Your task to perform on an android device: Clear all items from cart on target.com. Search for "razer huntsman" on target.com, select the first entry, and add it to the cart. Image 0: 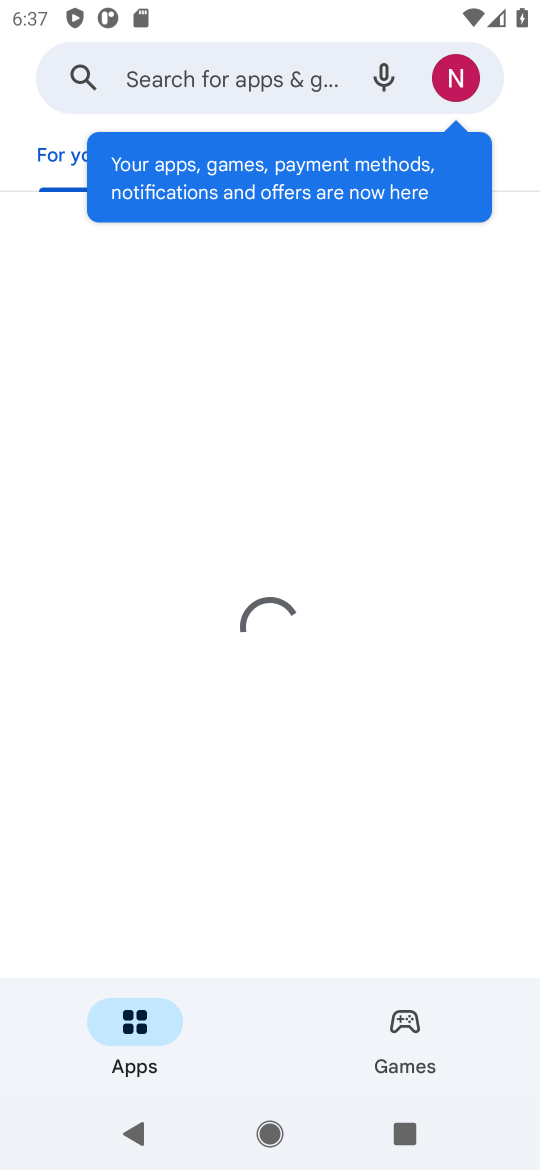
Step 0: press home button
Your task to perform on an android device: Clear all items from cart on target.com. Search for "razer huntsman" on target.com, select the first entry, and add it to the cart. Image 1: 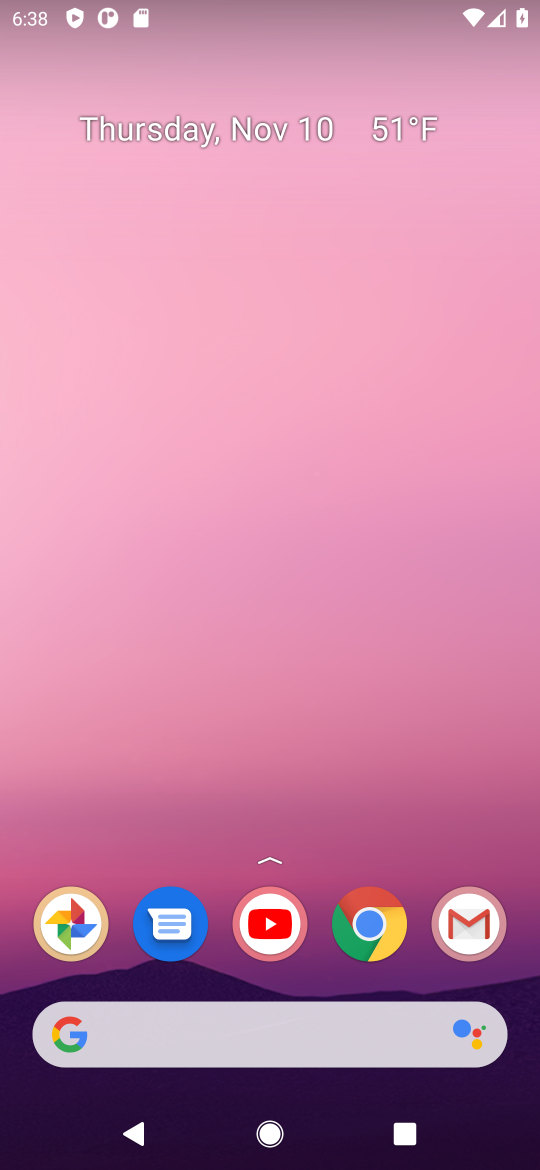
Step 1: click (363, 922)
Your task to perform on an android device: Clear all items from cart on target.com. Search for "razer huntsman" on target.com, select the first entry, and add it to the cart. Image 2: 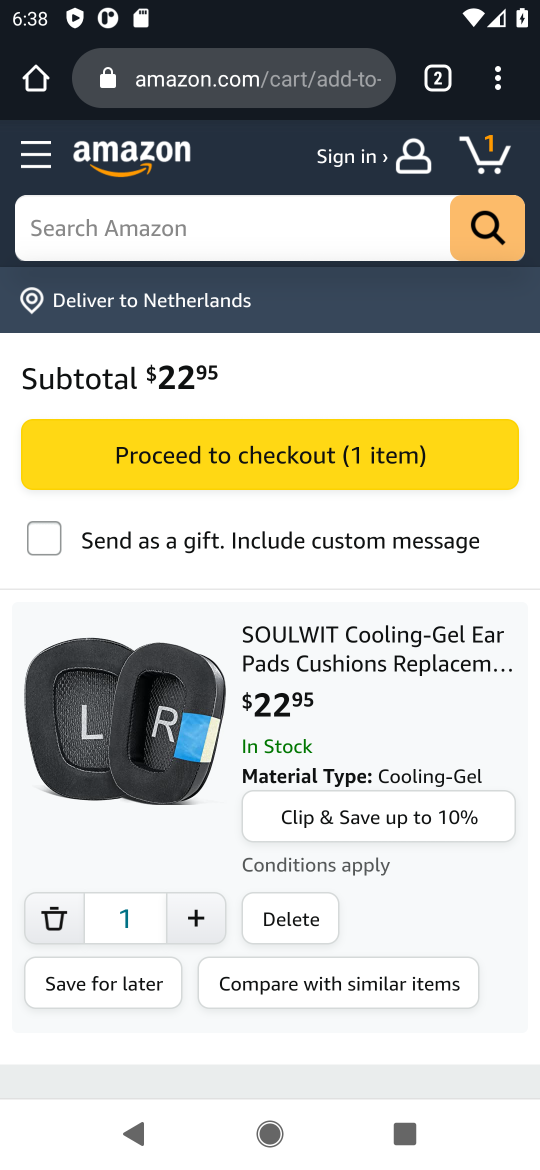
Step 2: click (172, 92)
Your task to perform on an android device: Clear all items from cart on target.com. Search for "razer huntsman" on target.com, select the first entry, and add it to the cart. Image 3: 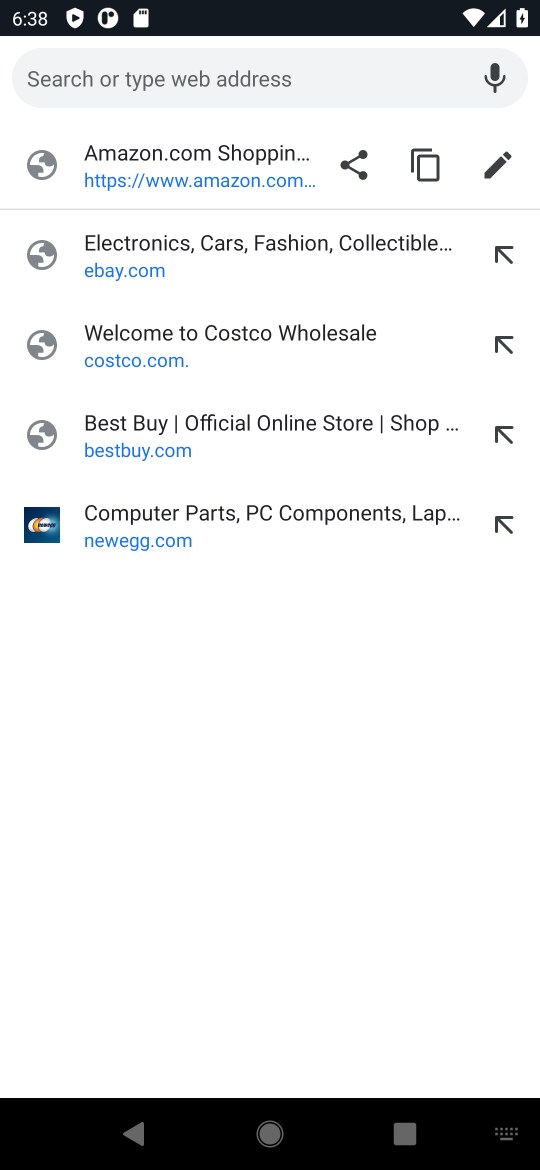
Step 3: type "target.com"
Your task to perform on an android device: Clear all items from cart on target.com. Search for "razer huntsman" on target.com, select the first entry, and add it to the cart. Image 4: 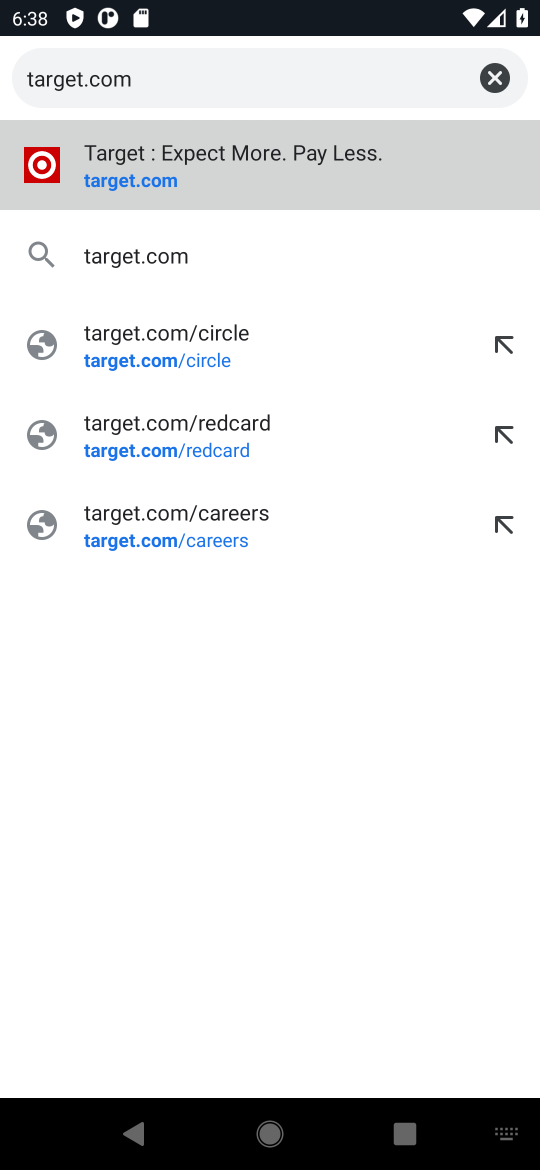
Step 4: click (150, 85)
Your task to perform on an android device: Clear all items from cart on target.com. Search for "razer huntsman" on target.com, select the first entry, and add it to the cart. Image 5: 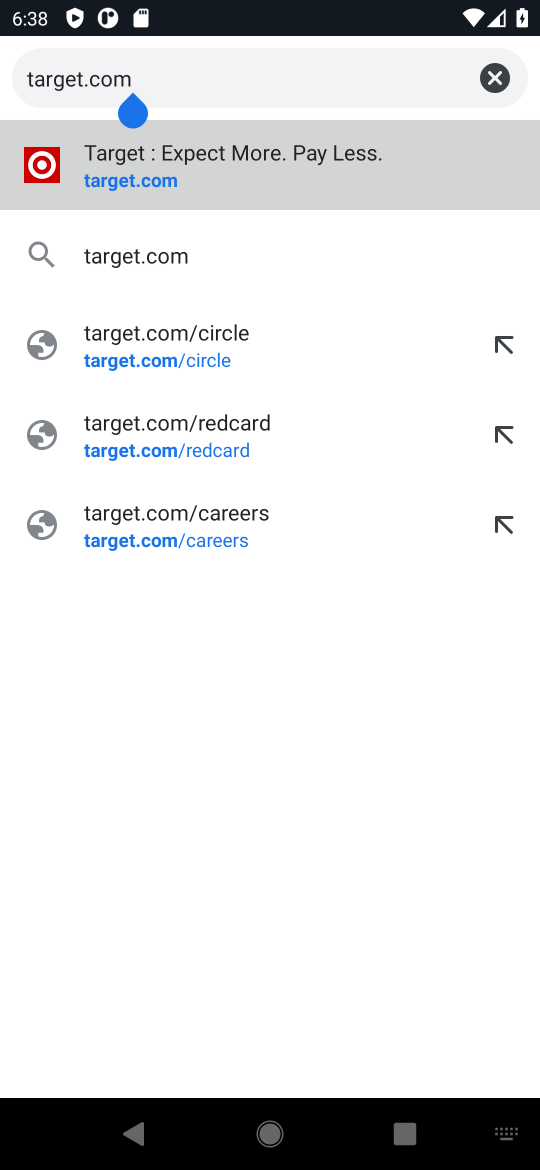
Step 5: click (125, 182)
Your task to perform on an android device: Clear all items from cart on target.com. Search for "razer huntsman" on target.com, select the first entry, and add it to the cart. Image 6: 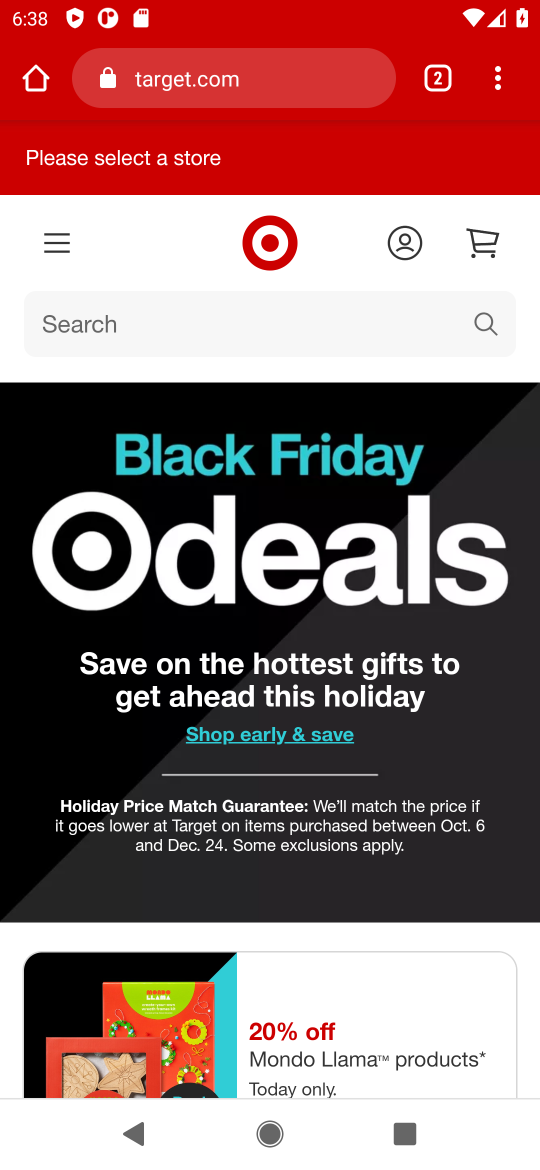
Step 6: click (487, 250)
Your task to perform on an android device: Clear all items from cart on target.com. Search for "razer huntsman" on target.com, select the first entry, and add it to the cart. Image 7: 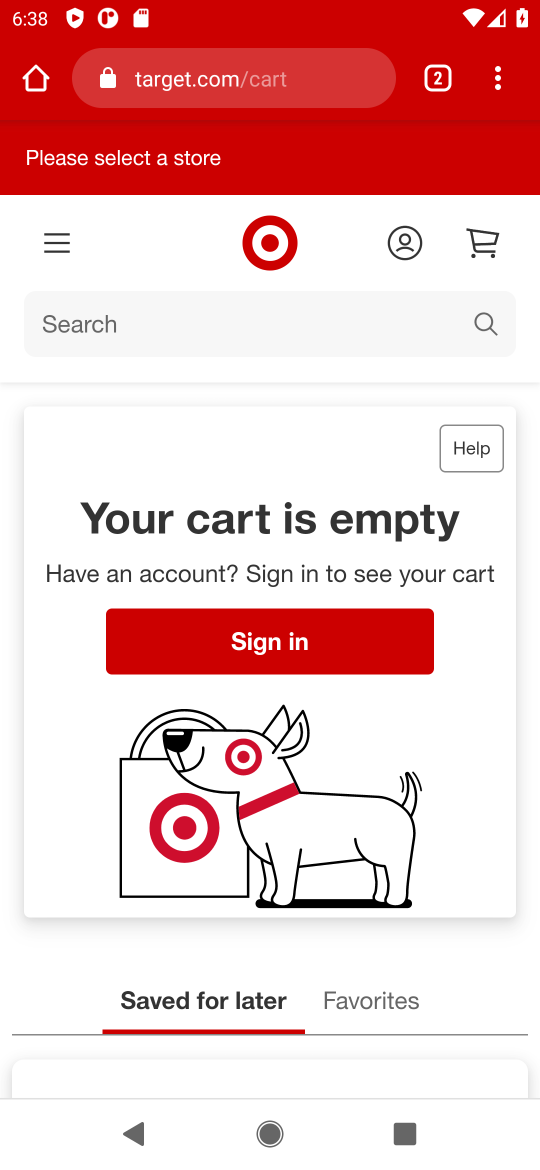
Step 7: click (487, 328)
Your task to perform on an android device: Clear all items from cart on target.com. Search for "razer huntsman" on target.com, select the first entry, and add it to the cart. Image 8: 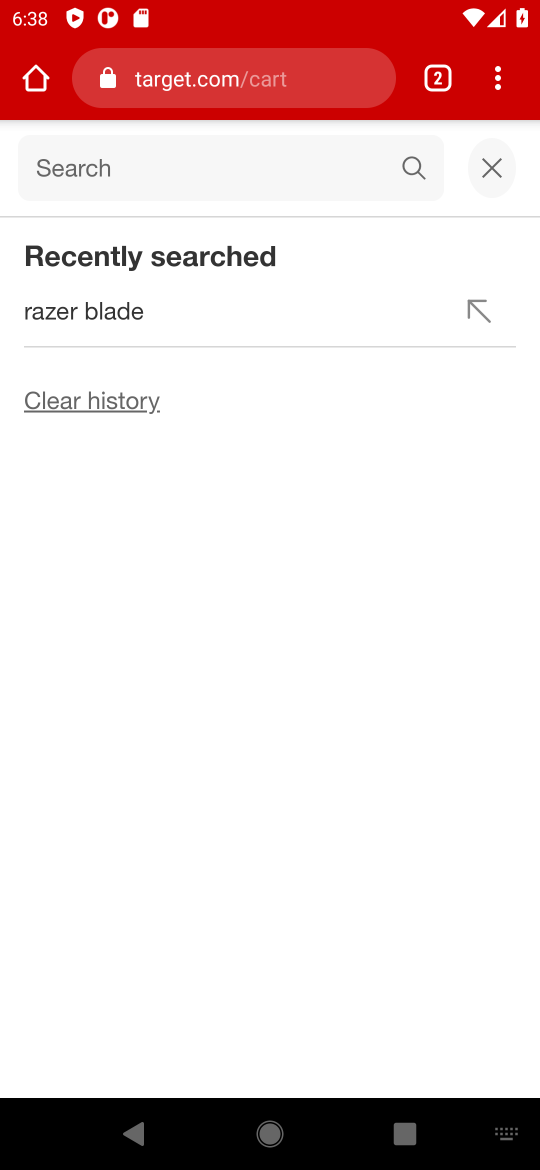
Step 8: type "razer huntsman"
Your task to perform on an android device: Clear all items from cart on target.com. Search for "razer huntsman" on target.com, select the first entry, and add it to the cart. Image 9: 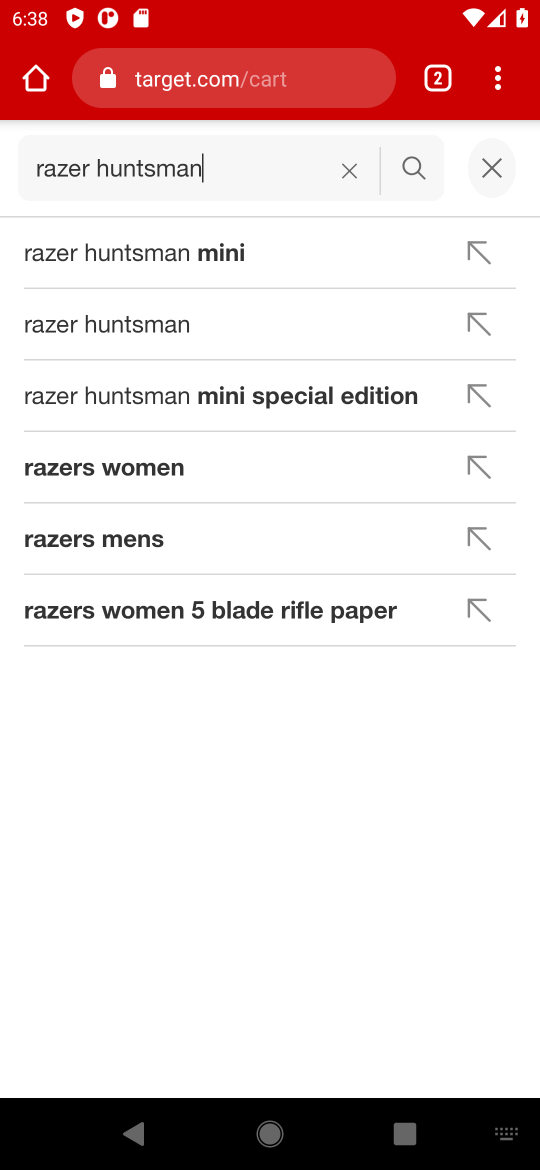
Step 9: click (112, 352)
Your task to perform on an android device: Clear all items from cart on target.com. Search for "razer huntsman" on target.com, select the first entry, and add it to the cart. Image 10: 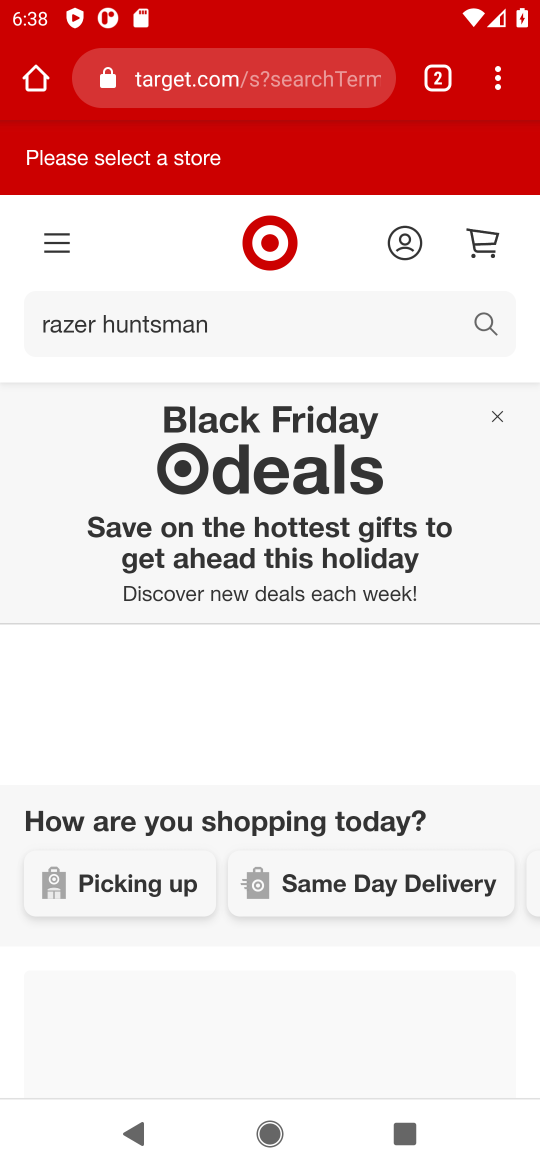
Step 10: task complete